Your task to perform on an android device: Open the phone app and click the voicemail tab. Image 0: 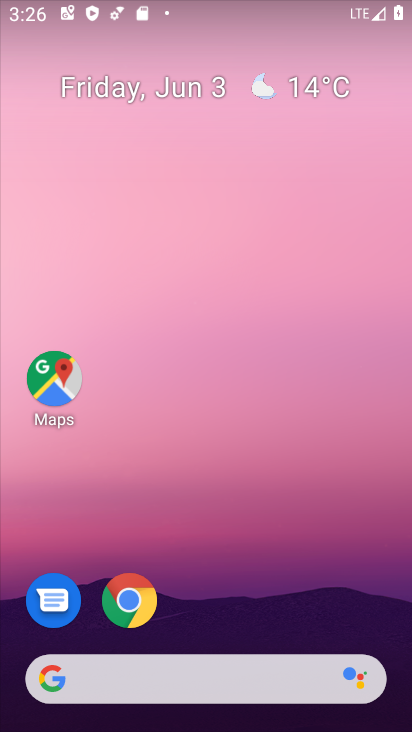
Step 0: drag from (353, 598) to (358, 181)
Your task to perform on an android device: Open the phone app and click the voicemail tab. Image 1: 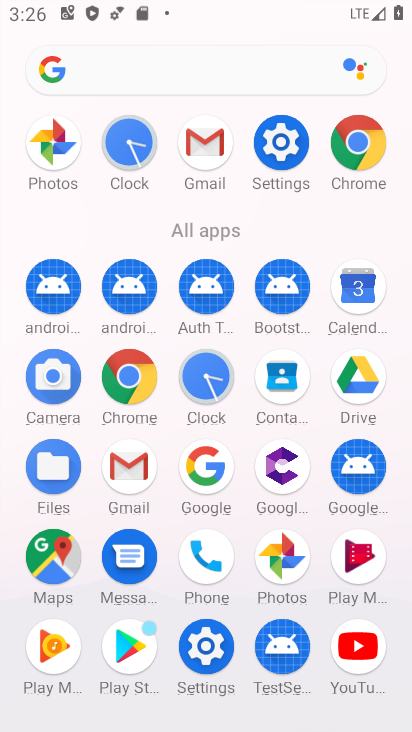
Step 1: click (209, 553)
Your task to perform on an android device: Open the phone app and click the voicemail tab. Image 2: 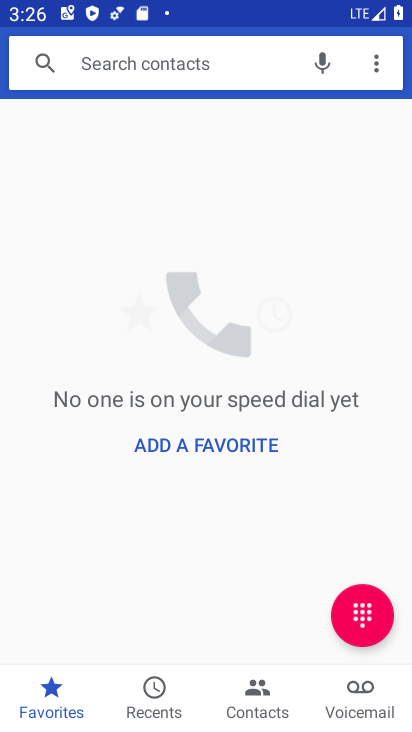
Step 2: click (349, 701)
Your task to perform on an android device: Open the phone app and click the voicemail tab. Image 3: 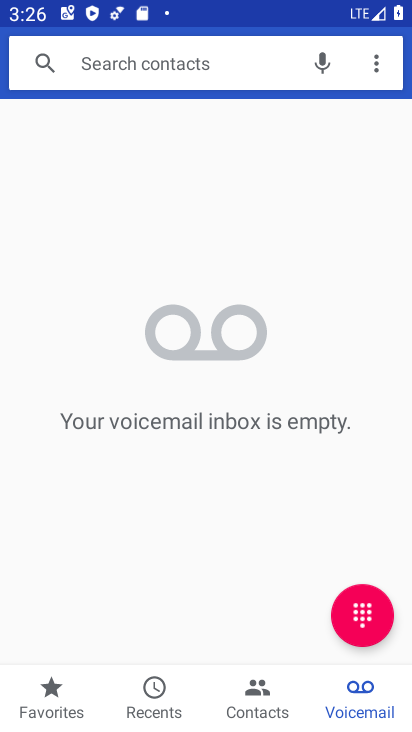
Step 3: task complete